Your task to perform on an android device: What's the weather? Image 0: 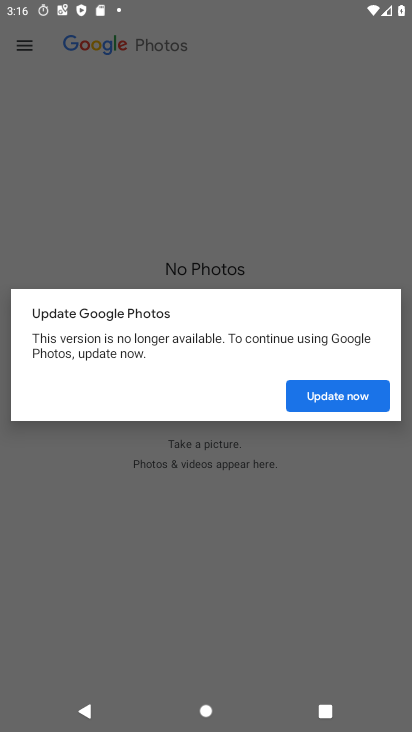
Step 0: drag from (243, 562) to (385, 76)
Your task to perform on an android device: What's the weather? Image 1: 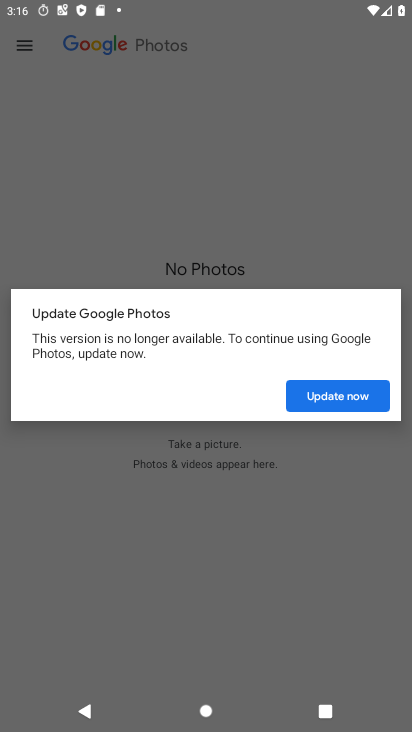
Step 1: press home button
Your task to perform on an android device: What's the weather? Image 2: 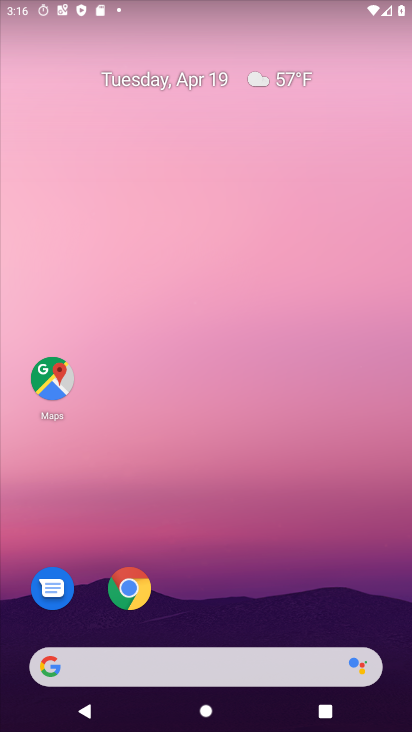
Step 2: drag from (186, 597) to (348, 24)
Your task to perform on an android device: What's the weather? Image 3: 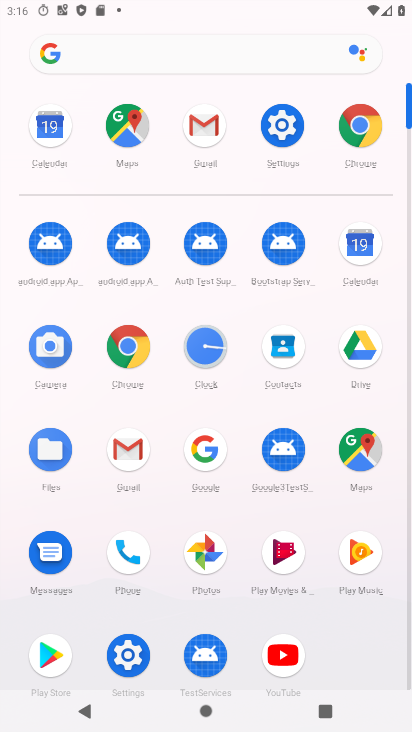
Step 3: click (125, 349)
Your task to perform on an android device: What's the weather? Image 4: 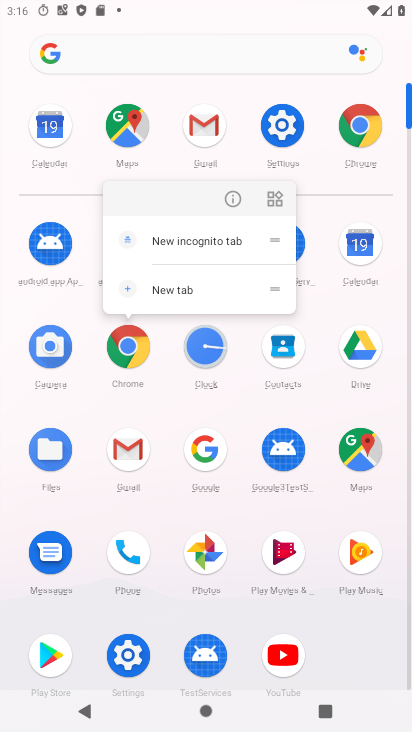
Step 4: click (232, 188)
Your task to perform on an android device: What's the weather? Image 5: 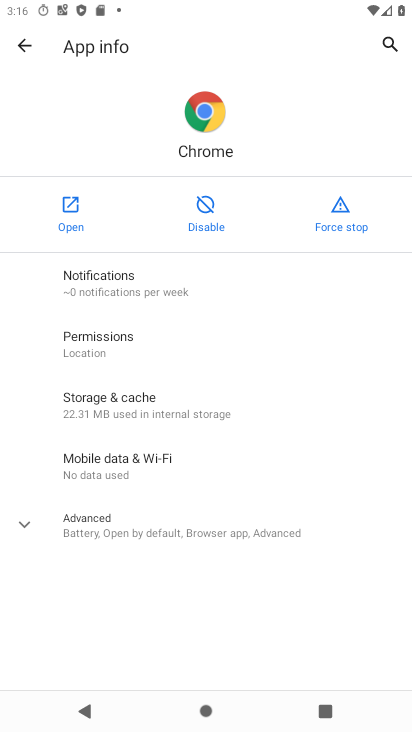
Step 5: click (70, 207)
Your task to perform on an android device: What's the weather? Image 6: 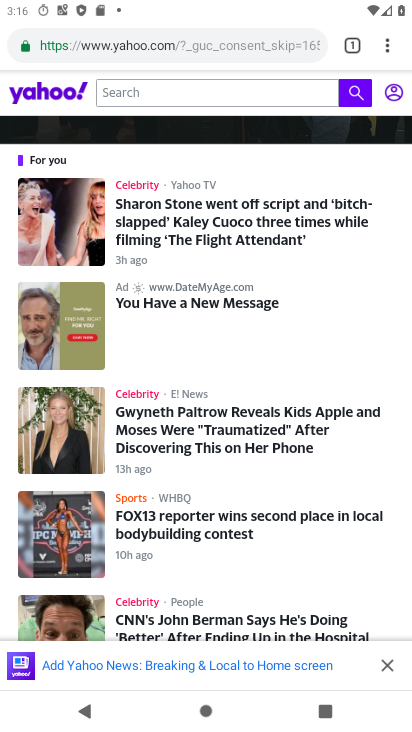
Step 6: click (205, 45)
Your task to perform on an android device: What's the weather? Image 7: 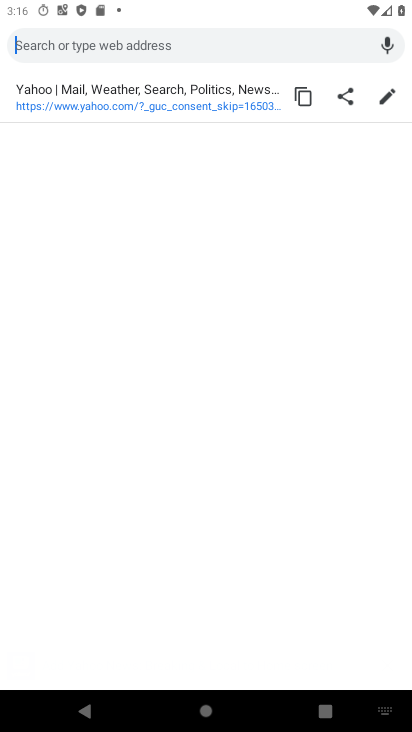
Step 7: click (205, 45)
Your task to perform on an android device: What's the weather? Image 8: 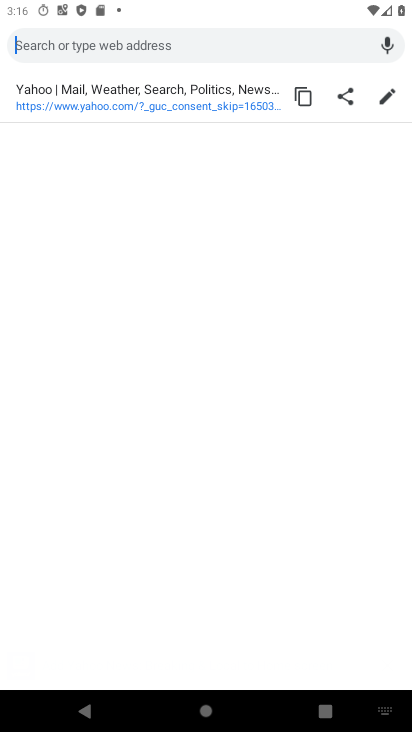
Step 8: type "weather"
Your task to perform on an android device: What's the weather? Image 9: 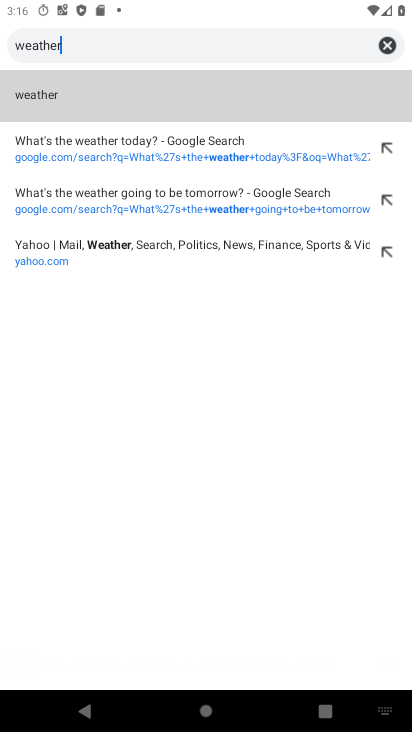
Step 9: click (46, 87)
Your task to perform on an android device: What's the weather? Image 10: 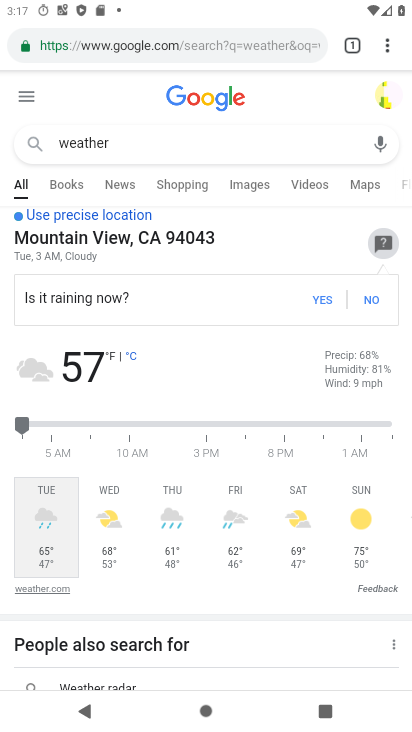
Step 10: task complete